Your task to perform on an android device: open app "Facebook" Image 0: 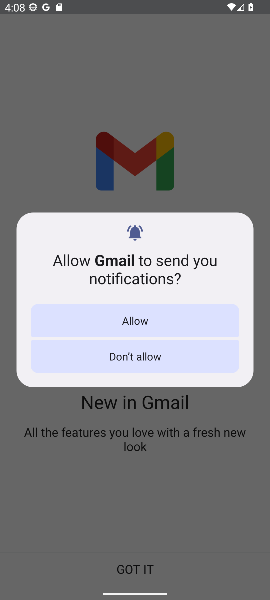
Step 0: press home button
Your task to perform on an android device: open app "Facebook" Image 1: 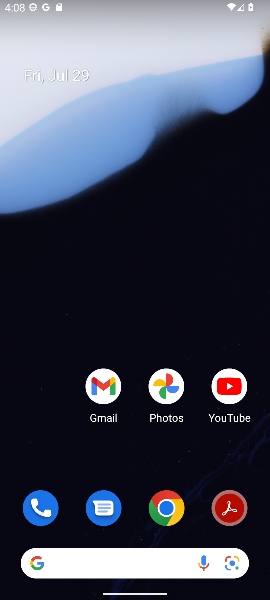
Step 1: drag from (225, 526) to (63, 72)
Your task to perform on an android device: open app "Facebook" Image 2: 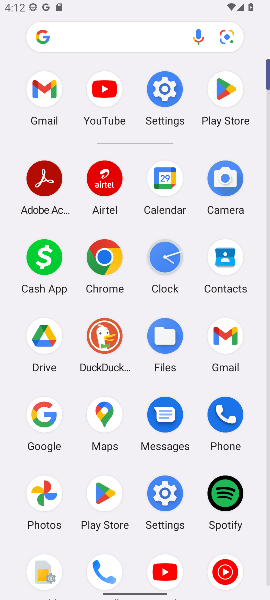
Step 2: click (229, 85)
Your task to perform on an android device: open app "Facebook" Image 3: 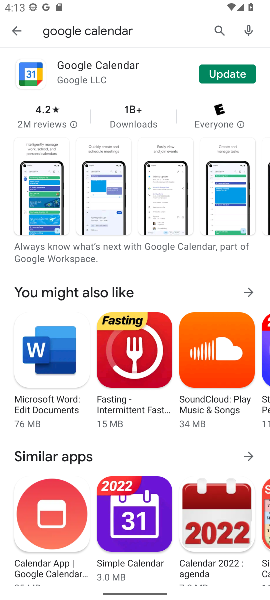
Step 3: press back button
Your task to perform on an android device: open app "Facebook" Image 4: 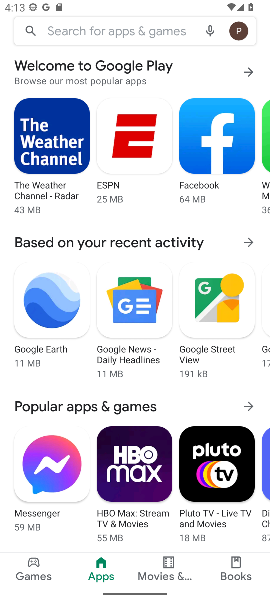
Step 4: click (73, 27)
Your task to perform on an android device: open app "Facebook" Image 5: 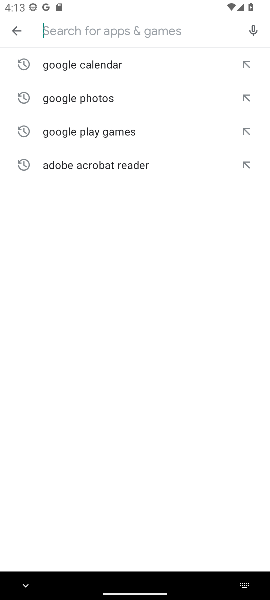
Step 5: type "Facebook"
Your task to perform on an android device: open app "Facebook" Image 6: 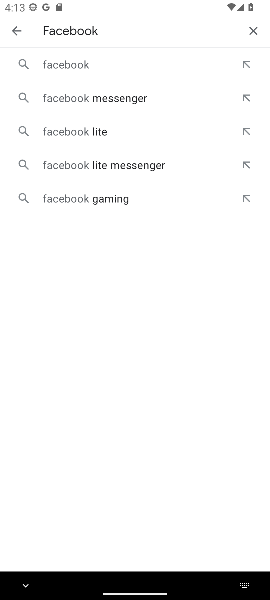
Step 6: click (80, 66)
Your task to perform on an android device: open app "Facebook" Image 7: 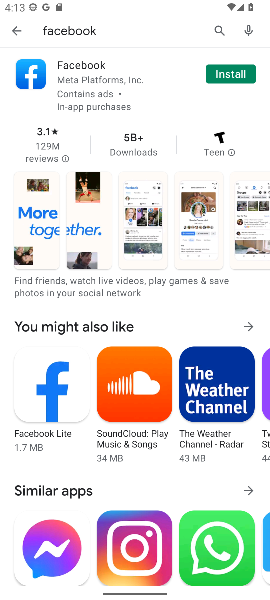
Step 7: task complete